Your task to perform on an android device: Go to notification settings Image 0: 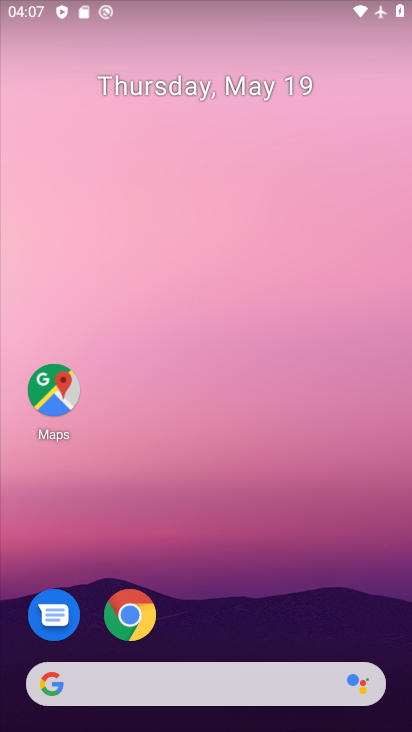
Step 0: drag from (284, 640) to (372, 13)
Your task to perform on an android device: Go to notification settings Image 1: 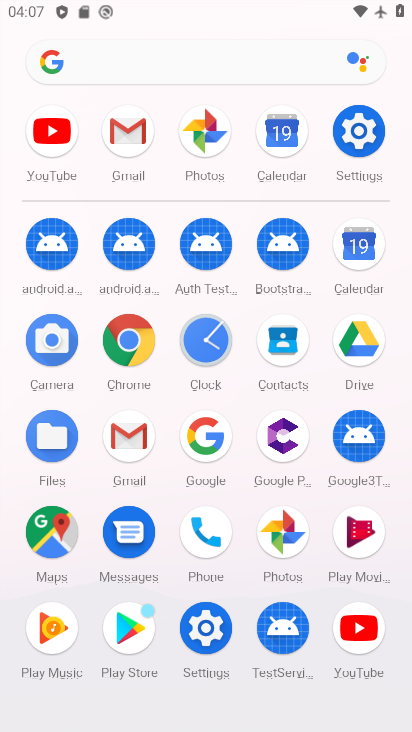
Step 1: click (369, 117)
Your task to perform on an android device: Go to notification settings Image 2: 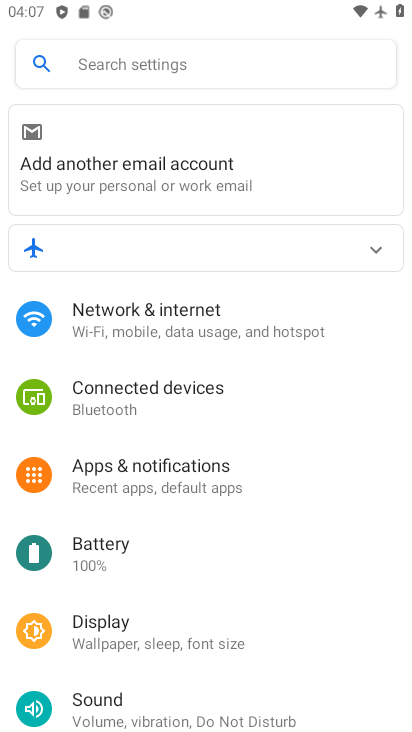
Step 2: click (146, 476)
Your task to perform on an android device: Go to notification settings Image 3: 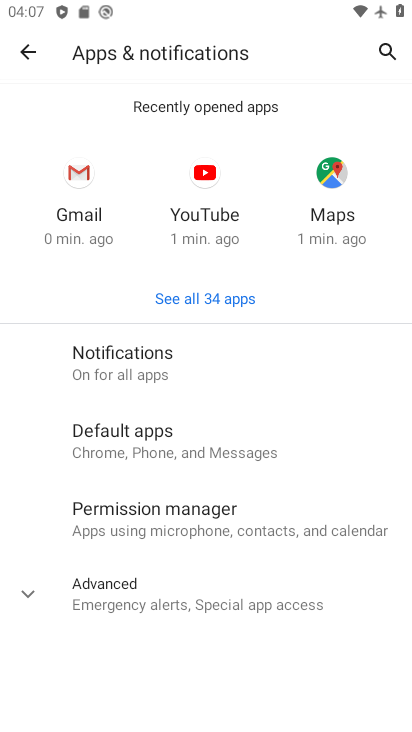
Step 3: task complete